Your task to perform on an android device: Is it going to rain this weekend? Image 0: 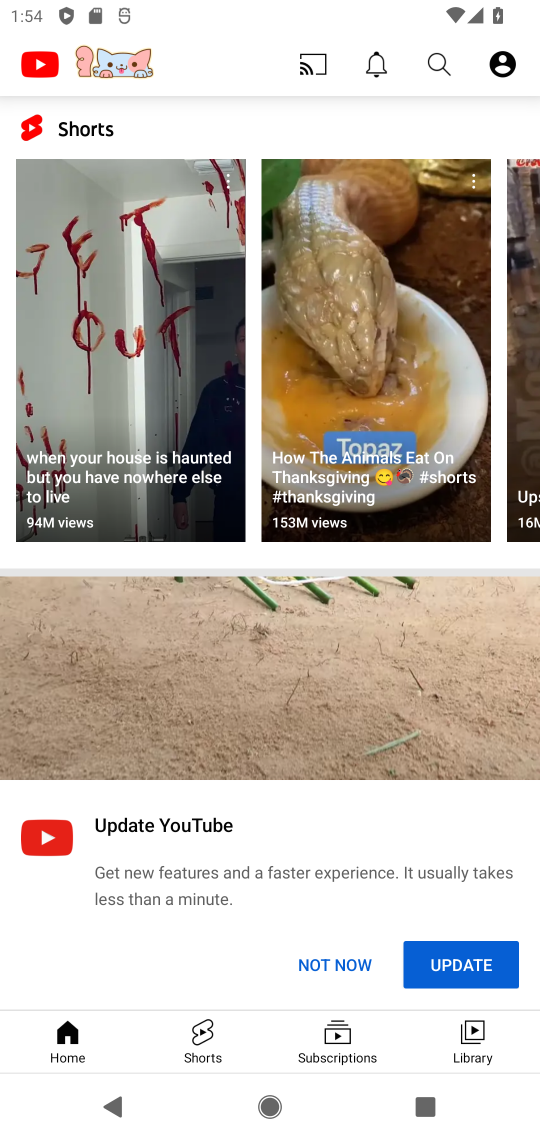
Step 0: press home button
Your task to perform on an android device: Is it going to rain this weekend? Image 1: 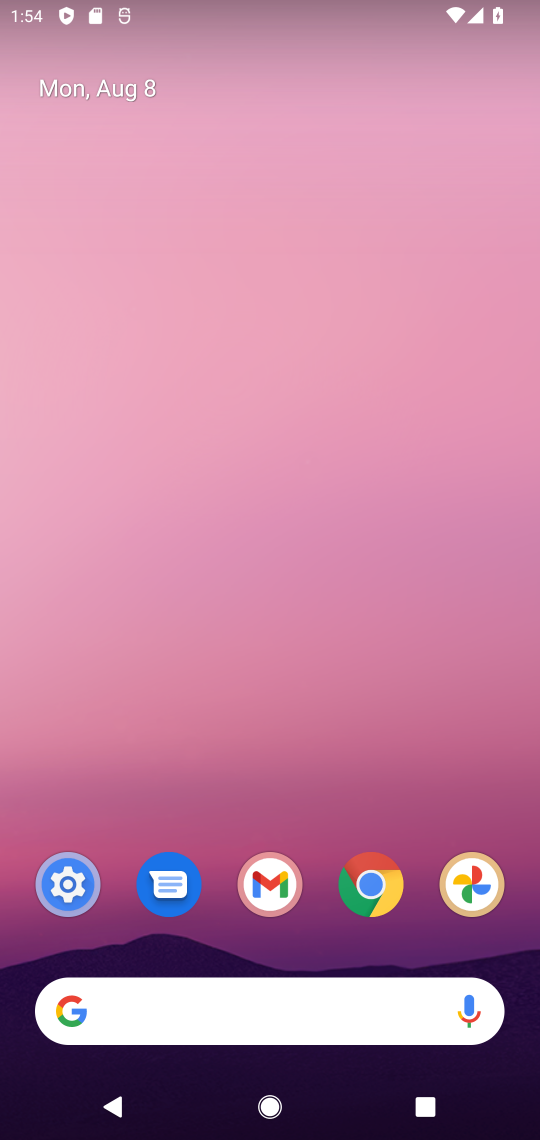
Step 1: click (240, 990)
Your task to perform on an android device: Is it going to rain this weekend? Image 2: 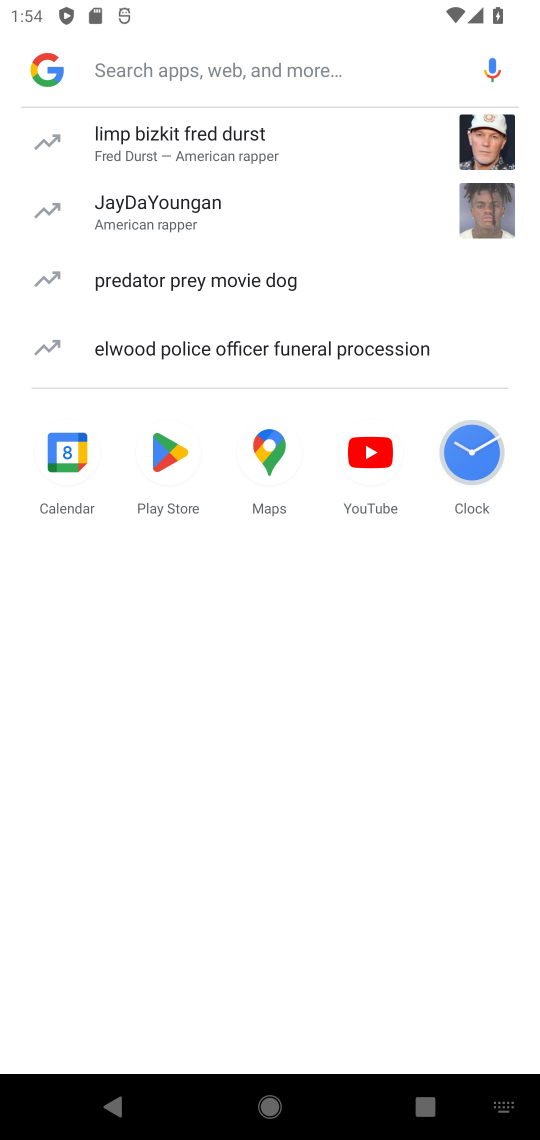
Step 2: type "Is it going to rain tomorrow"
Your task to perform on an android device: Is it going to rain this weekend? Image 3: 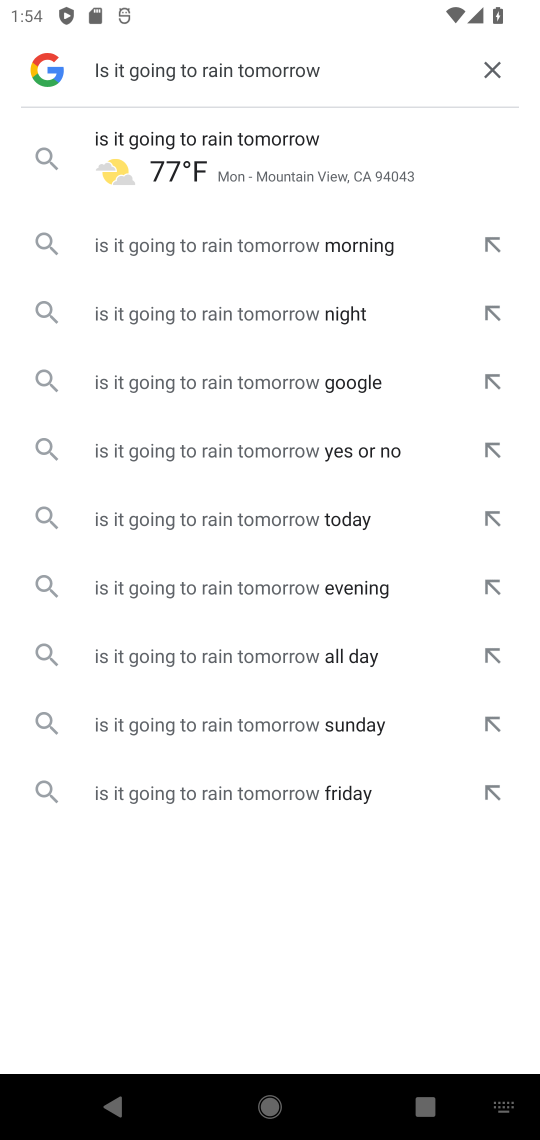
Step 3: click (242, 136)
Your task to perform on an android device: Is it going to rain this weekend? Image 4: 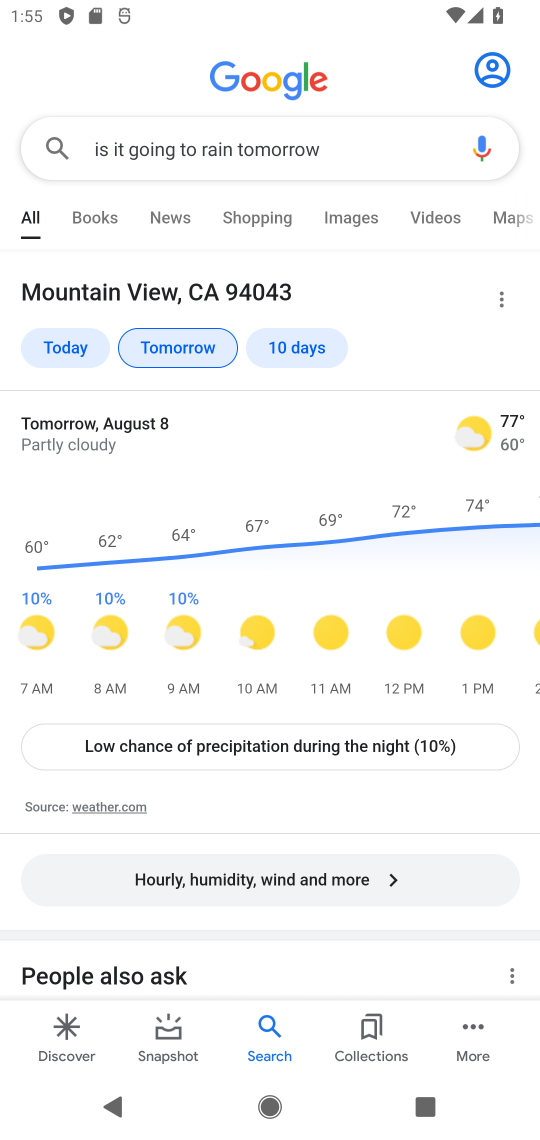
Step 4: click (287, 346)
Your task to perform on an android device: Is it going to rain this weekend? Image 5: 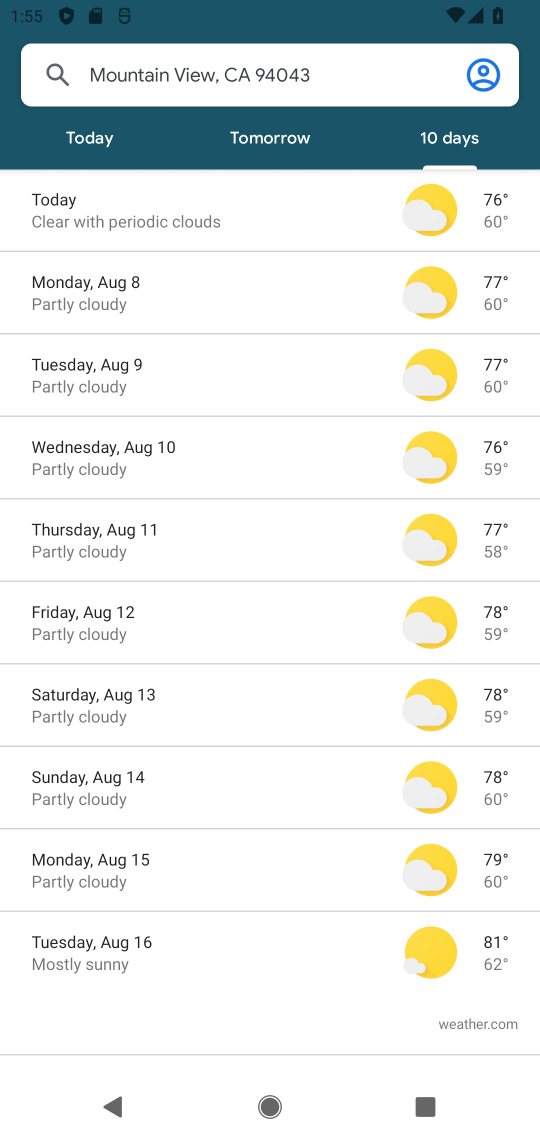
Step 5: task complete